Your task to perform on an android device: Open ESPN.com Image 0: 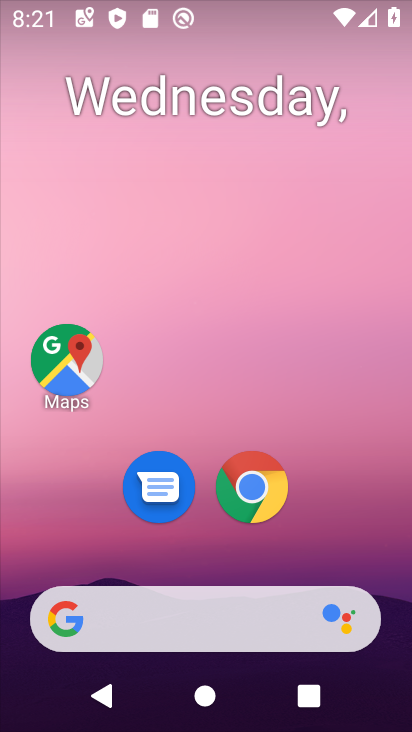
Step 0: drag from (286, 543) to (284, 46)
Your task to perform on an android device: Open ESPN.com Image 1: 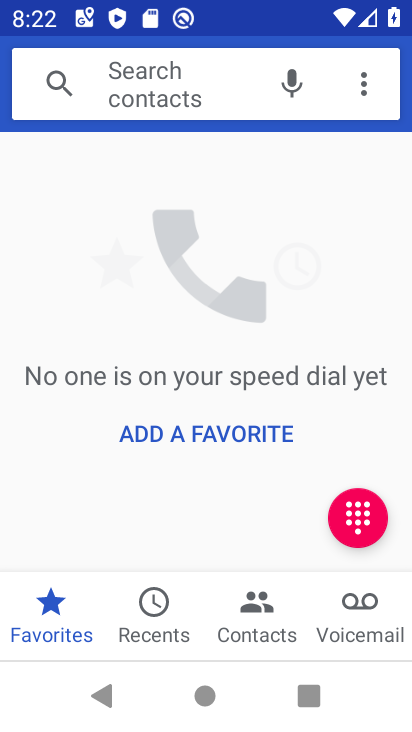
Step 1: press back button
Your task to perform on an android device: Open ESPN.com Image 2: 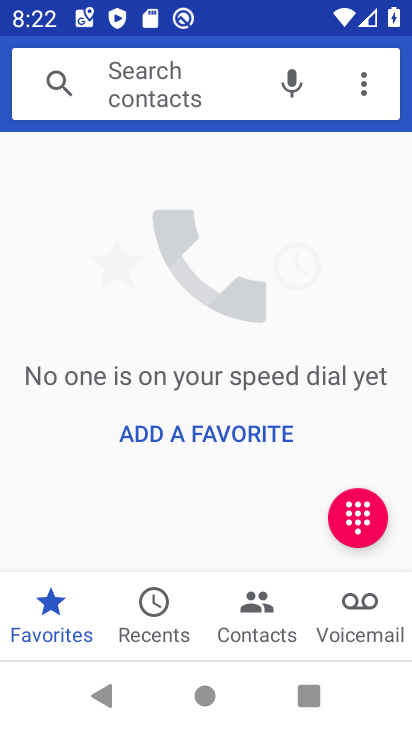
Step 2: press back button
Your task to perform on an android device: Open ESPN.com Image 3: 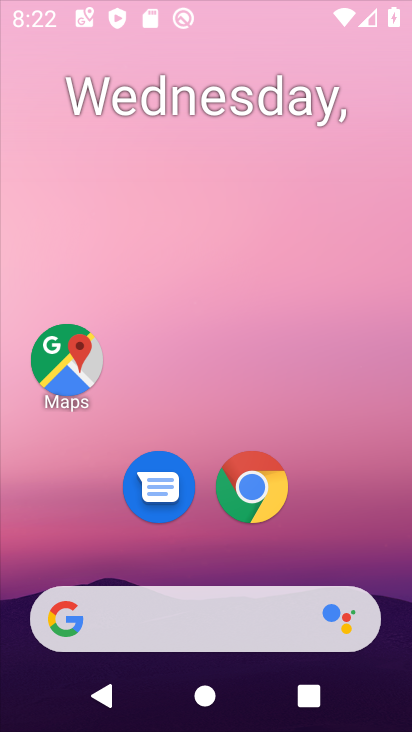
Step 3: press back button
Your task to perform on an android device: Open ESPN.com Image 4: 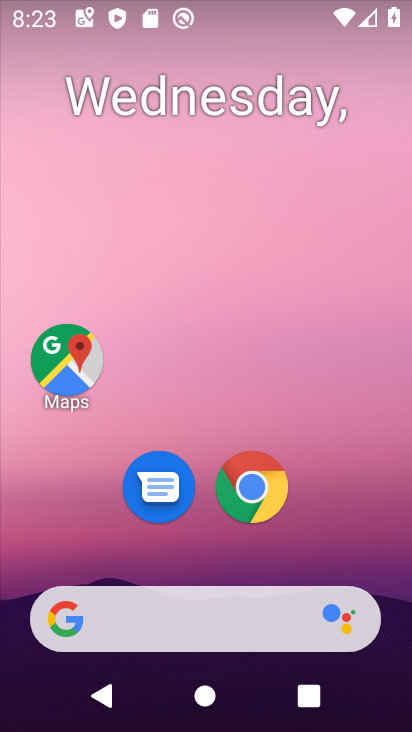
Step 4: drag from (269, 673) to (285, 65)
Your task to perform on an android device: Open ESPN.com Image 5: 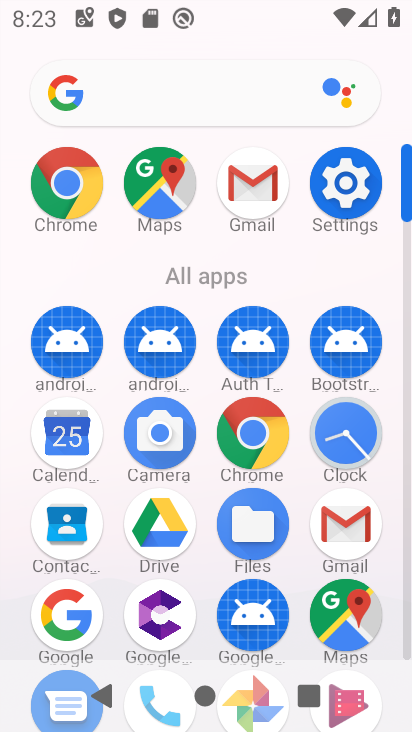
Step 5: click (66, 185)
Your task to perform on an android device: Open ESPN.com Image 6: 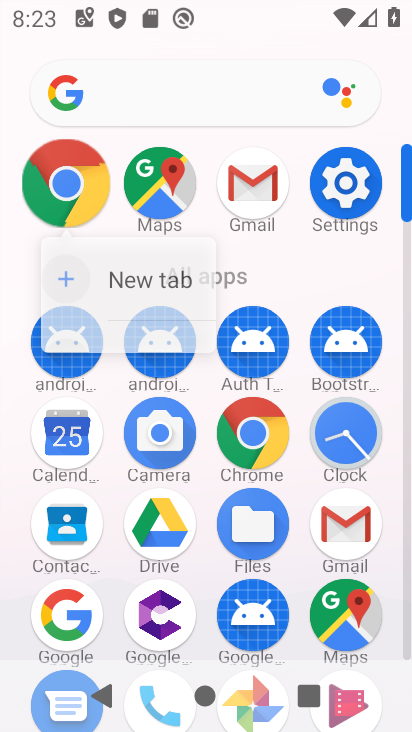
Step 6: click (69, 183)
Your task to perform on an android device: Open ESPN.com Image 7: 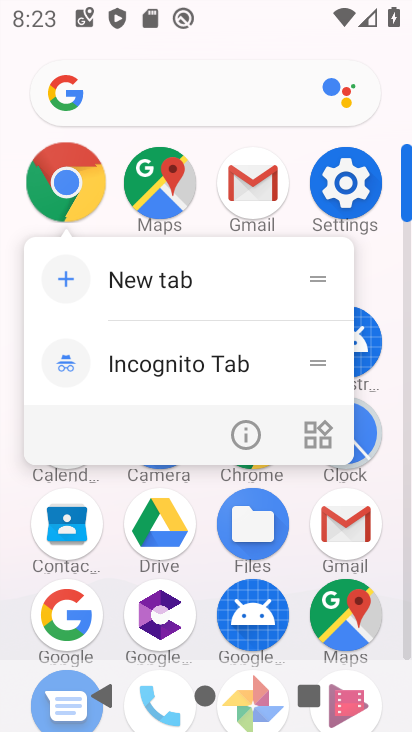
Step 7: click (70, 182)
Your task to perform on an android device: Open ESPN.com Image 8: 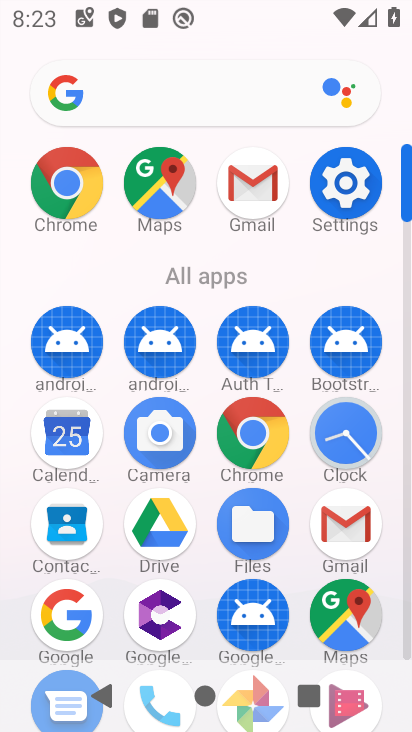
Step 8: click (72, 181)
Your task to perform on an android device: Open ESPN.com Image 9: 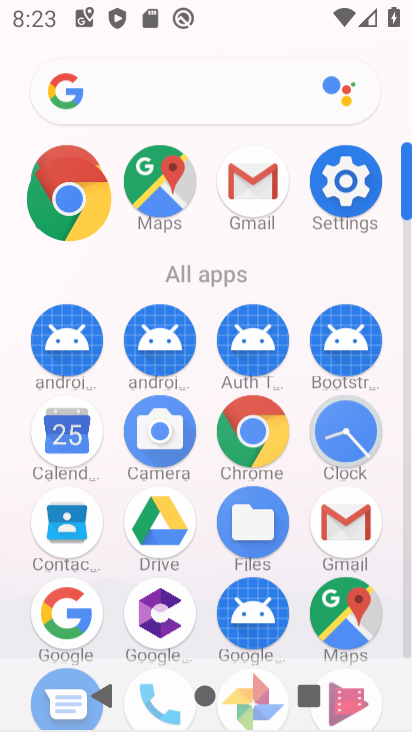
Step 9: click (72, 181)
Your task to perform on an android device: Open ESPN.com Image 10: 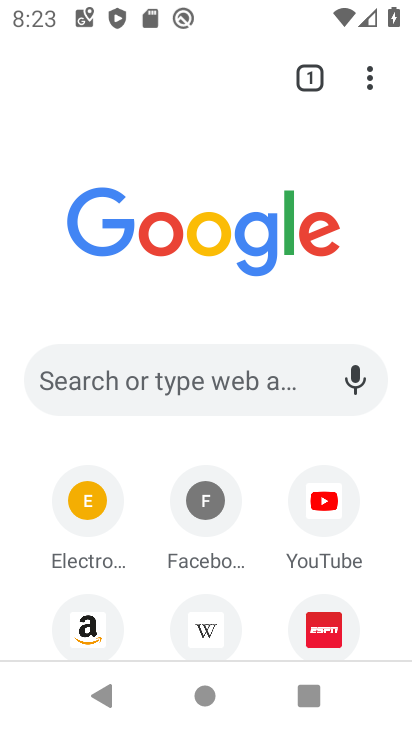
Step 10: click (320, 630)
Your task to perform on an android device: Open ESPN.com Image 11: 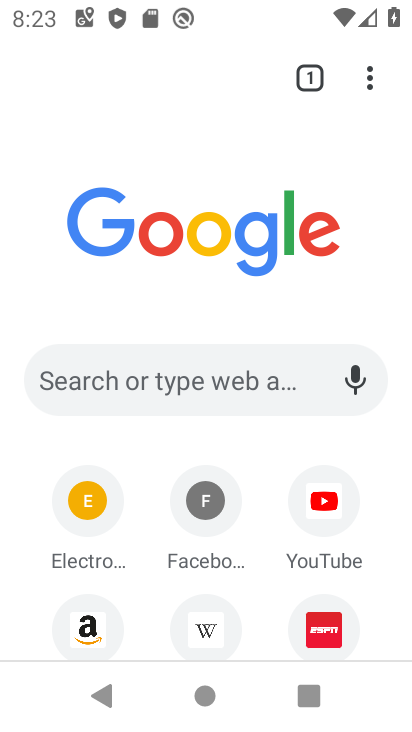
Step 11: click (320, 629)
Your task to perform on an android device: Open ESPN.com Image 12: 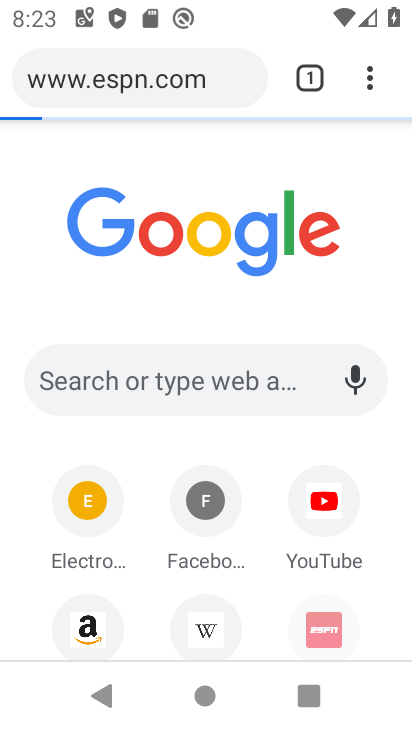
Step 12: click (320, 627)
Your task to perform on an android device: Open ESPN.com Image 13: 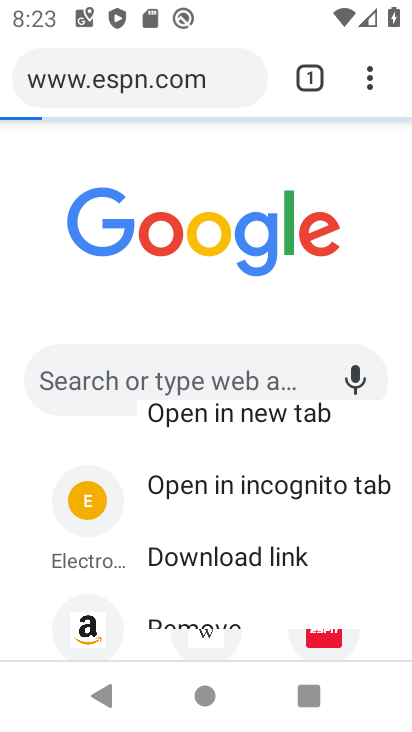
Step 13: click (323, 624)
Your task to perform on an android device: Open ESPN.com Image 14: 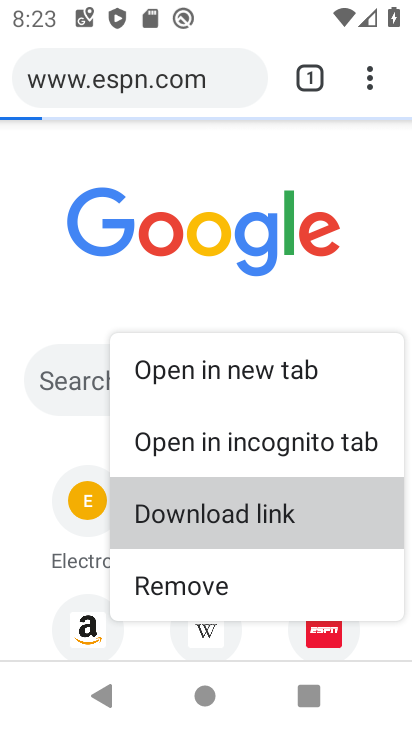
Step 14: click (323, 624)
Your task to perform on an android device: Open ESPN.com Image 15: 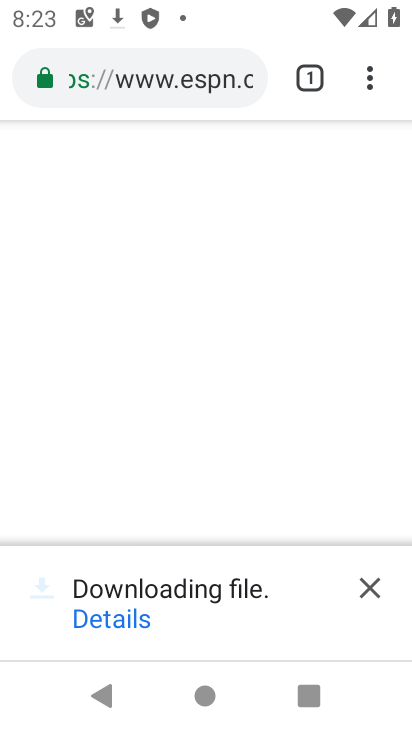
Step 15: task complete